Your task to perform on an android device: turn on translation in the chrome app Image 0: 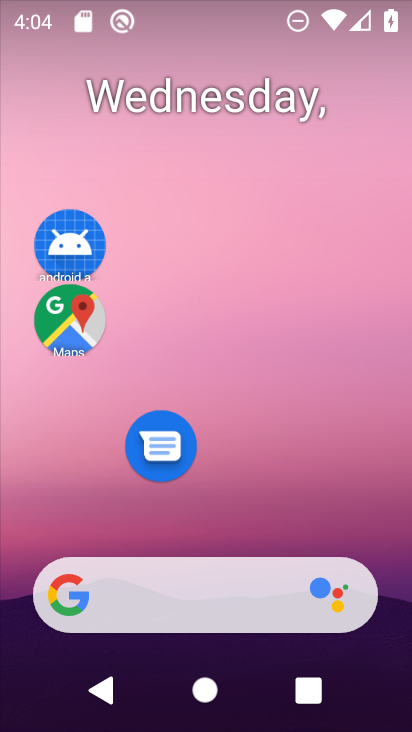
Step 0: drag from (344, 518) to (331, 129)
Your task to perform on an android device: turn on translation in the chrome app Image 1: 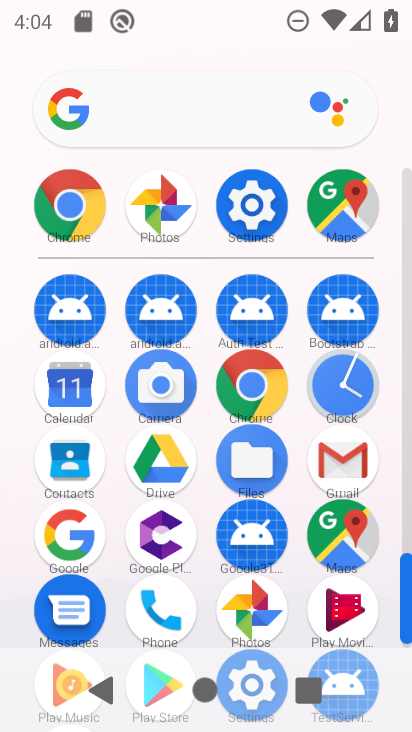
Step 1: click (67, 210)
Your task to perform on an android device: turn on translation in the chrome app Image 2: 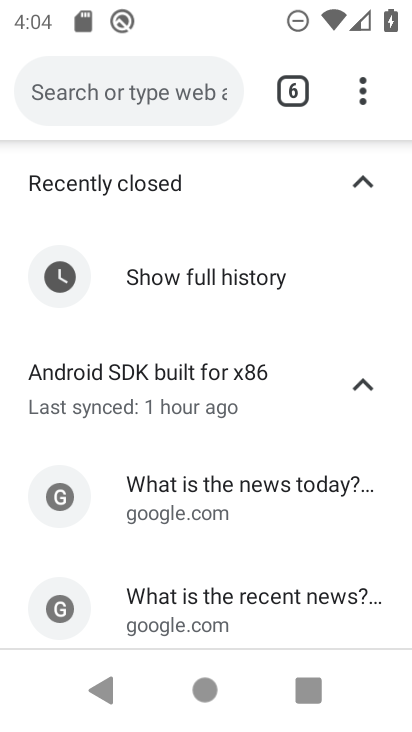
Step 2: click (354, 102)
Your task to perform on an android device: turn on translation in the chrome app Image 3: 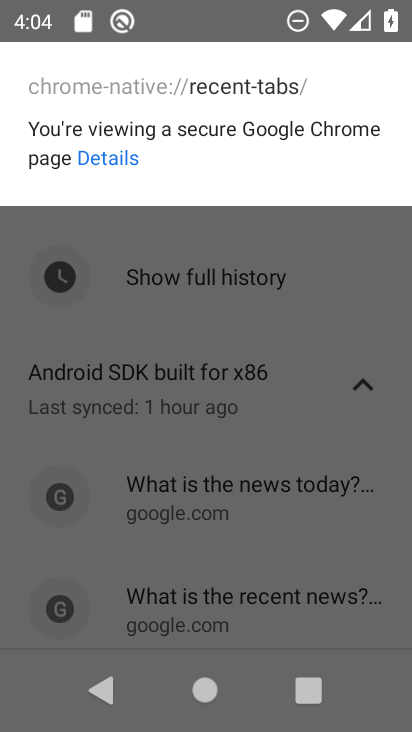
Step 3: click (237, 348)
Your task to perform on an android device: turn on translation in the chrome app Image 4: 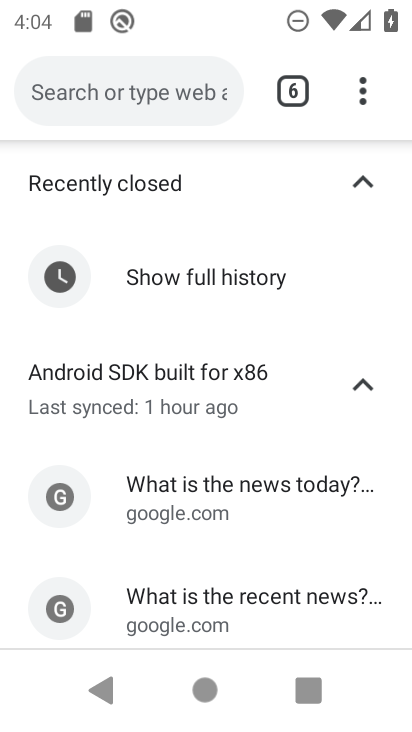
Step 4: click (371, 92)
Your task to perform on an android device: turn on translation in the chrome app Image 5: 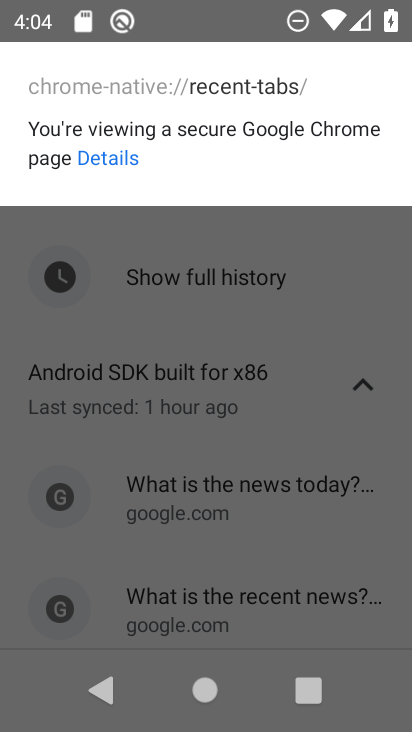
Step 5: click (257, 431)
Your task to perform on an android device: turn on translation in the chrome app Image 6: 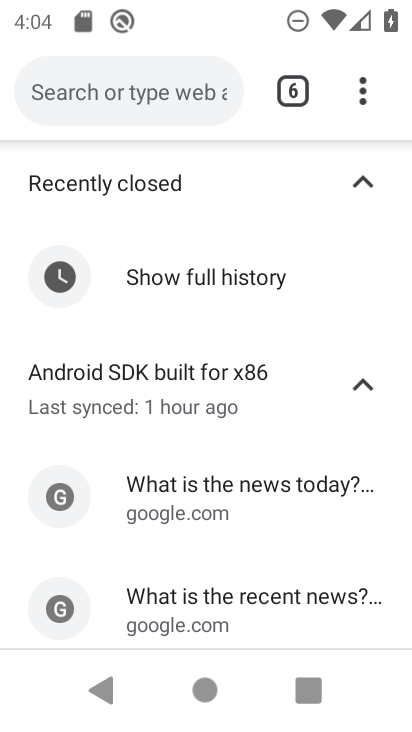
Step 6: click (367, 105)
Your task to perform on an android device: turn on translation in the chrome app Image 7: 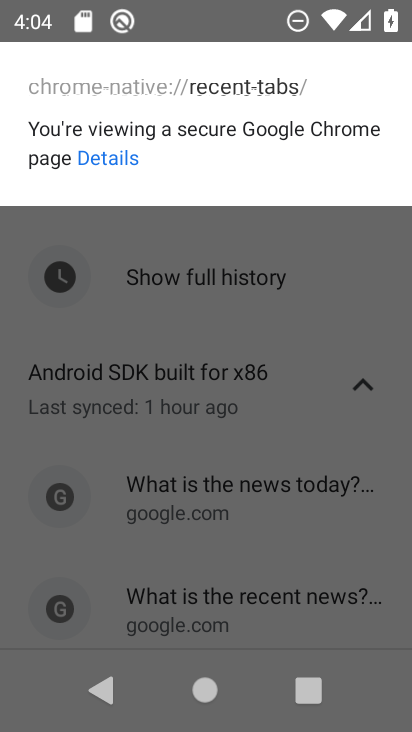
Step 7: click (276, 362)
Your task to perform on an android device: turn on translation in the chrome app Image 8: 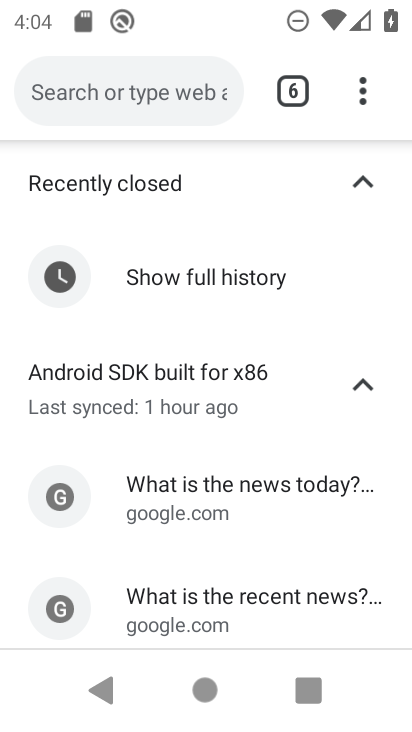
Step 8: click (371, 101)
Your task to perform on an android device: turn on translation in the chrome app Image 9: 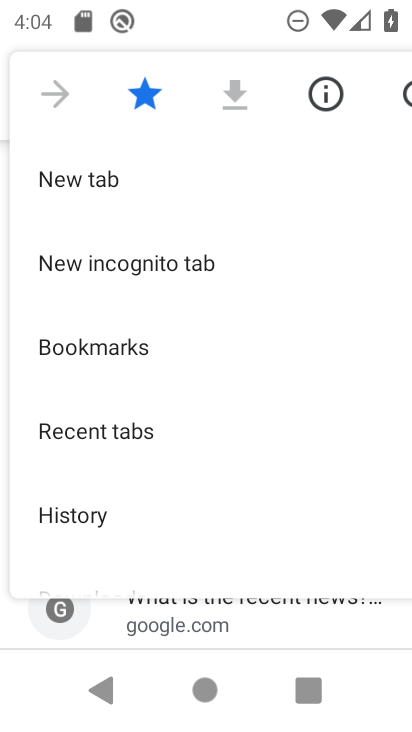
Step 9: drag from (225, 459) to (271, 265)
Your task to perform on an android device: turn on translation in the chrome app Image 10: 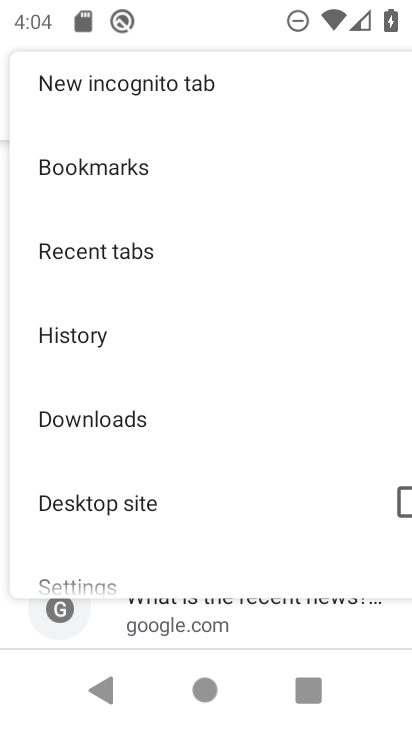
Step 10: drag from (173, 456) to (184, 277)
Your task to perform on an android device: turn on translation in the chrome app Image 11: 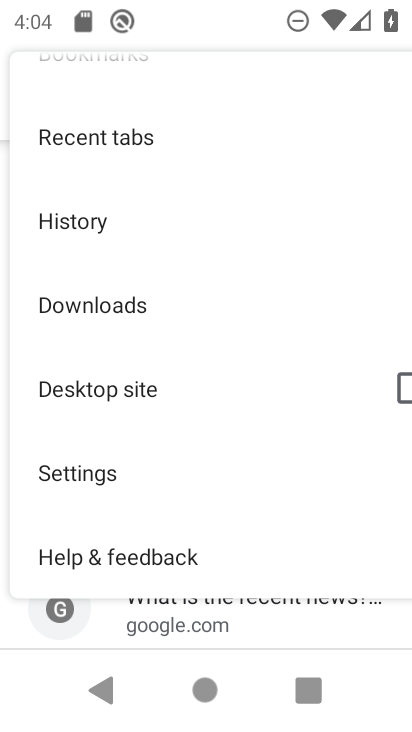
Step 11: click (103, 473)
Your task to perform on an android device: turn on translation in the chrome app Image 12: 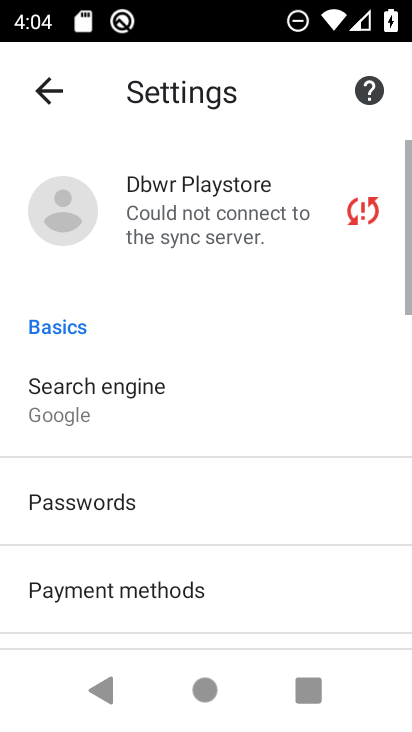
Step 12: drag from (103, 473) to (147, 176)
Your task to perform on an android device: turn on translation in the chrome app Image 13: 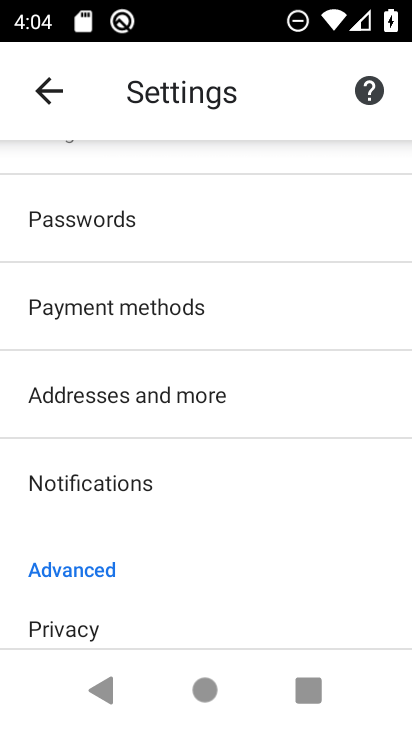
Step 13: drag from (124, 562) to (185, 314)
Your task to perform on an android device: turn on translation in the chrome app Image 14: 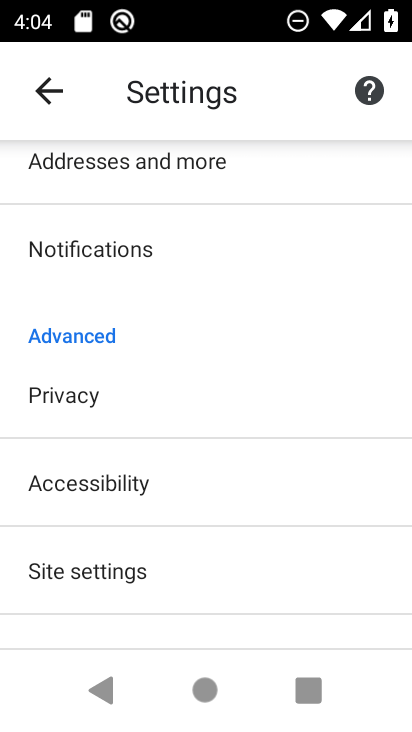
Step 14: drag from (121, 546) to (159, 314)
Your task to perform on an android device: turn on translation in the chrome app Image 15: 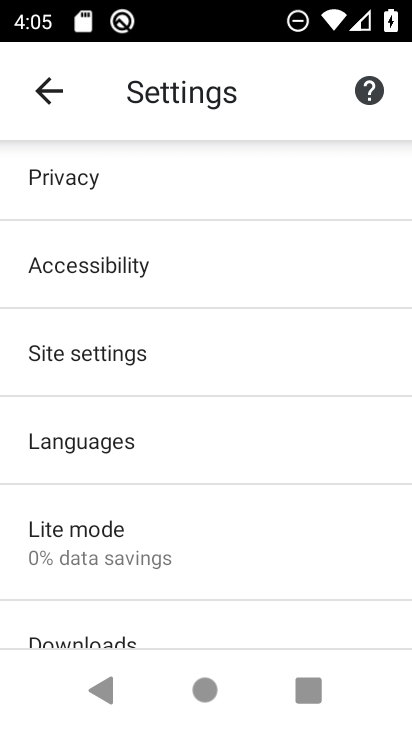
Step 15: click (171, 426)
Your task to perform on an android device: turn on translation in the chrome app Image 16: 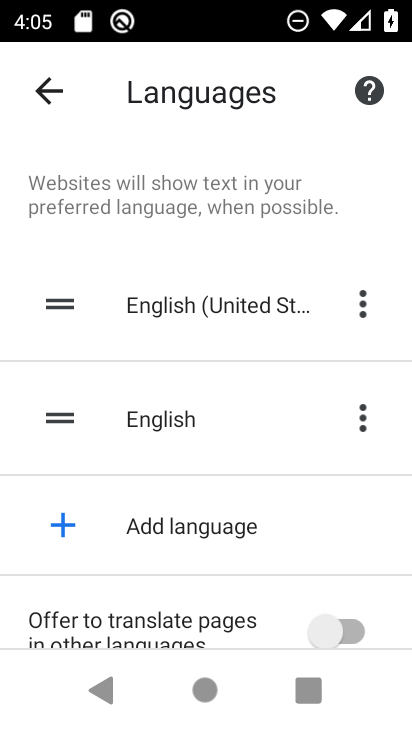
Step 16: click (359, 588)
Your task to perform on an android device: turn on translation in the chrome app Image 17: 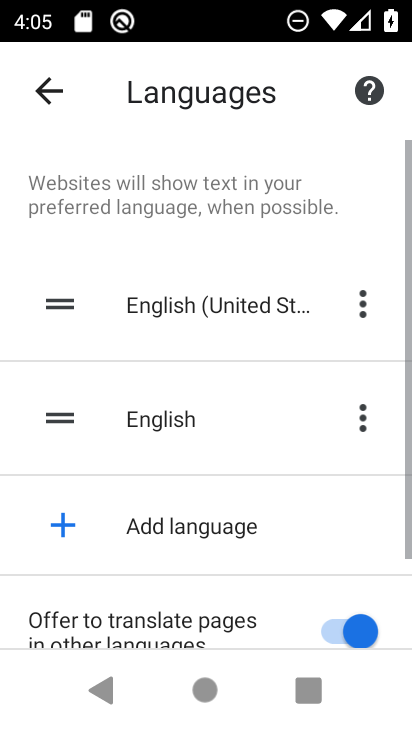
Step 17: task complete